Your task to perform on an android device: toggle airplane mode Image 0: 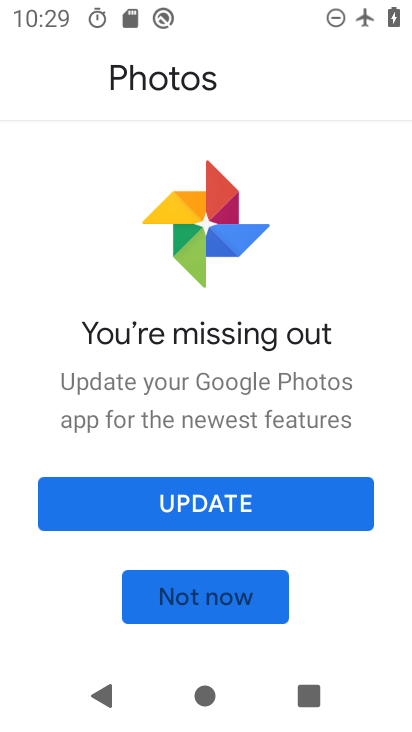
Step 0: drag from (326, 15) to (241, 588)
Your task to perform on an android device: toggle airplane mode Image 1: 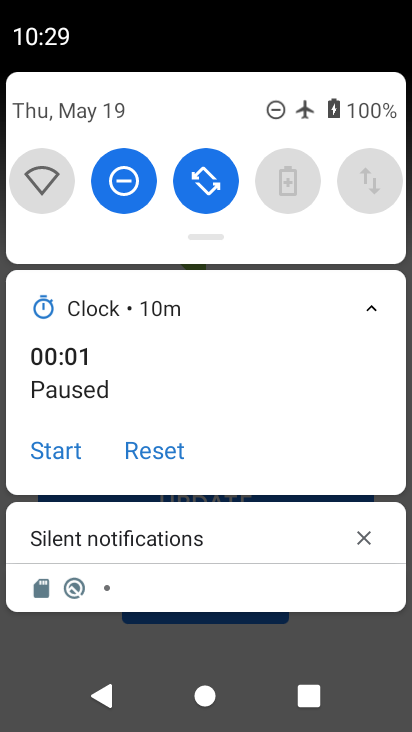
Step 1: drag from (207, 229) to (158, 609)
Your task to perform on an android device: toggle airplane mode Image 2: 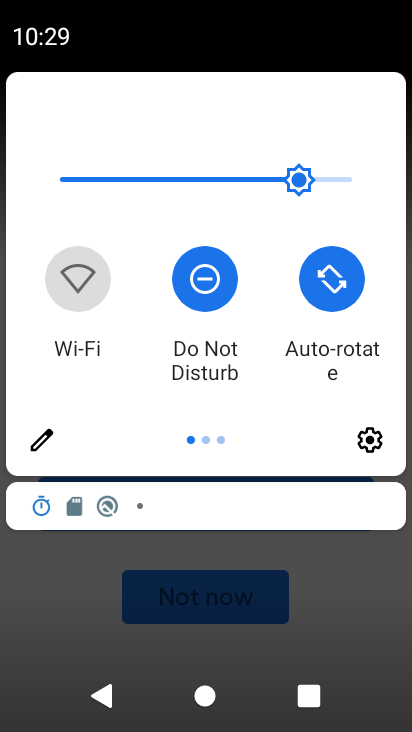
Step 2: drag from (361, 301) to (51, 251)
Your task to perform on an android device: toggle airplane mode Image 3: 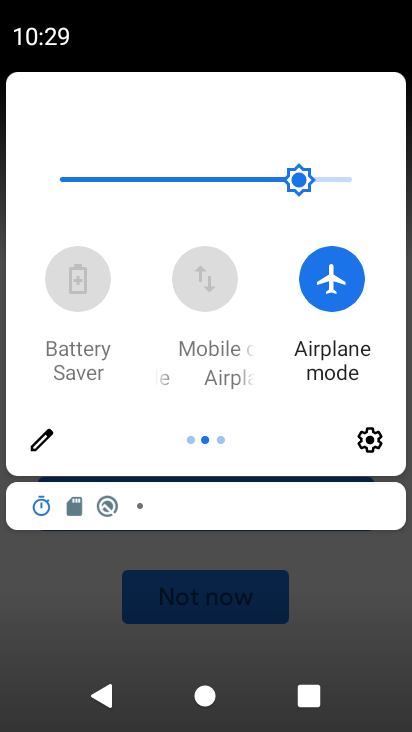
Step 3: click (323, 288)
Your task to perform on an android device: toggle airplane mode Image 4: 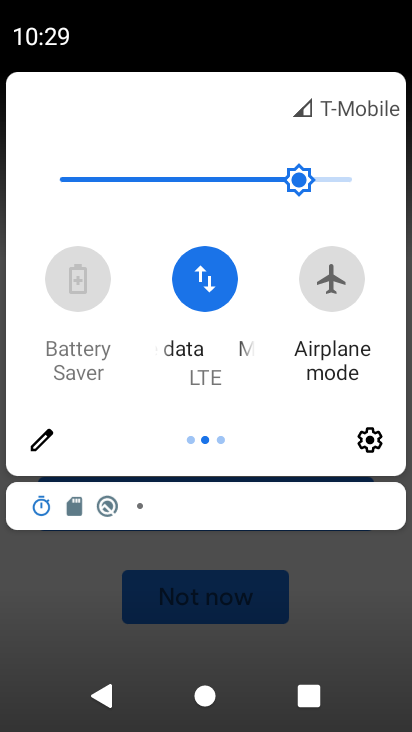
Step 4: task complete